Your task to perform on an android device: Go to network settings Image 0: 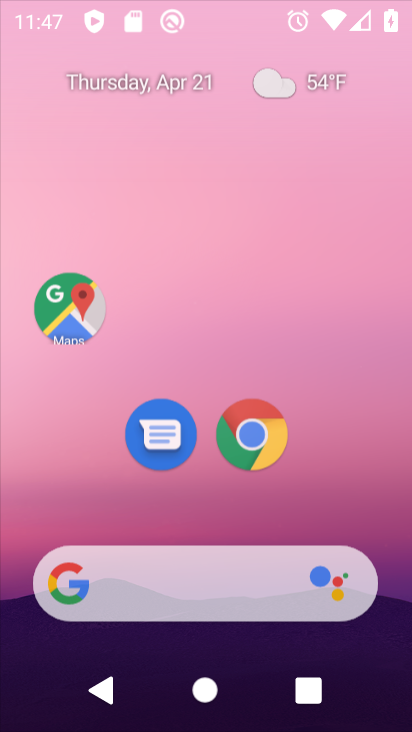
Step 0: click (332, 253)
Your task to perform on an android device: Go to network settings Image 1: 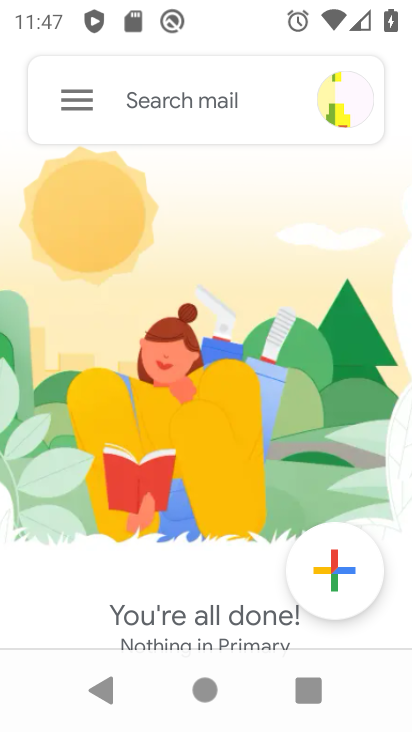
Step 1: press home button
Your task to perform on an android device: Go to network settings Image 2: 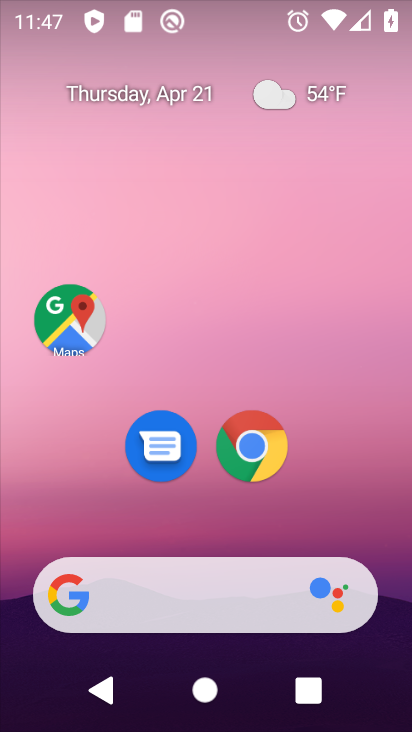
Step 2: drag from (401, 503) to (347, 168)
Your task to perform on an android device: Go to network settings Image 3: 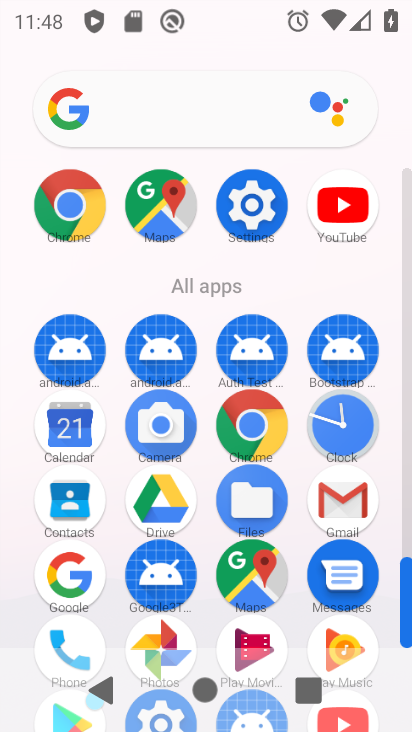
Step 3: click (265, 213)
Your task to perform on an android device: Go to network settings Image 4: 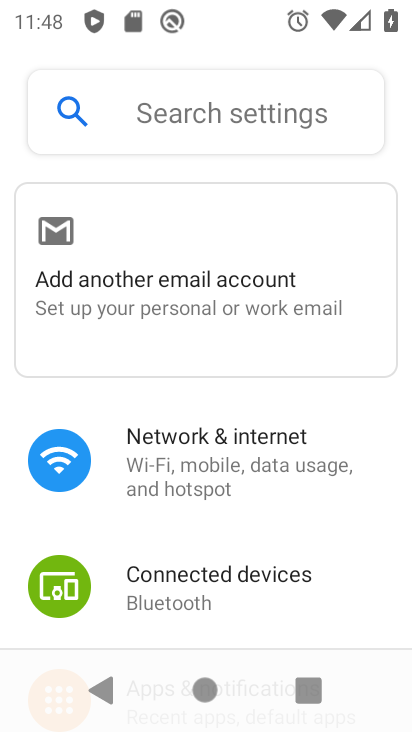
Step 4: click (265, 467)
Your task to perform on an android device: Go to network settings Image 5: 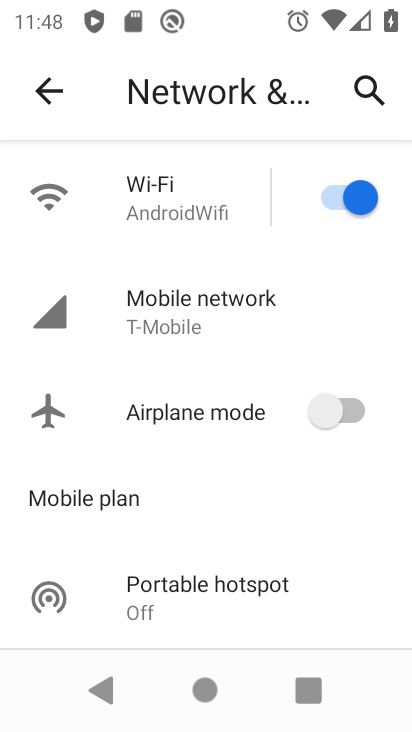
Step 5: task complete